Your task to perform on an android device: open chrome privacy settings Image 0: 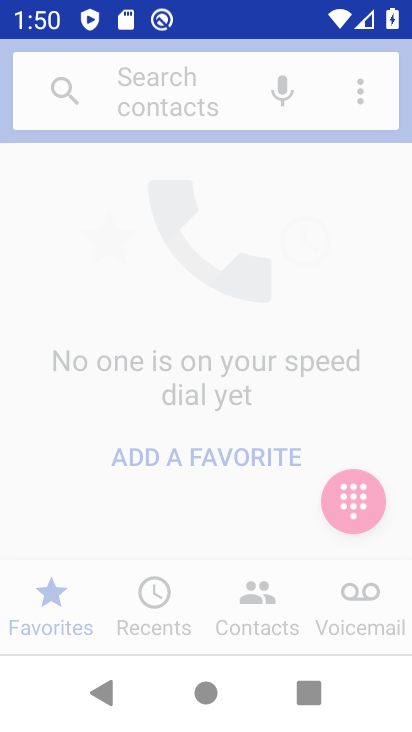
Step 0: drag from (363, 531) to (200, 126)
Your task to perform on an android device: open chrome privacy settings Image 1: 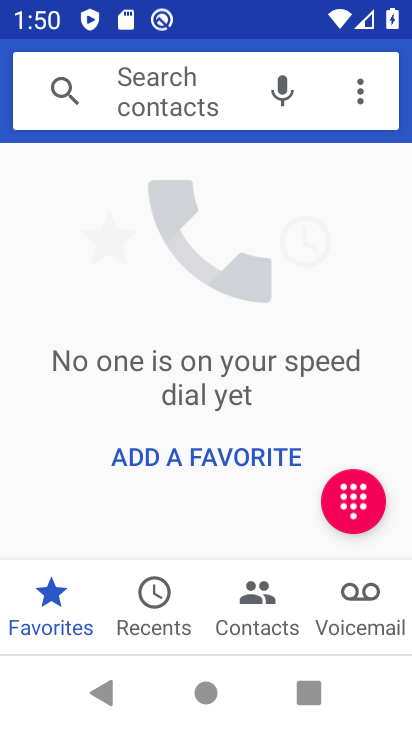
Step 1: press back button
Your task to perform on an android device: open chrome privacy settings Image 2: 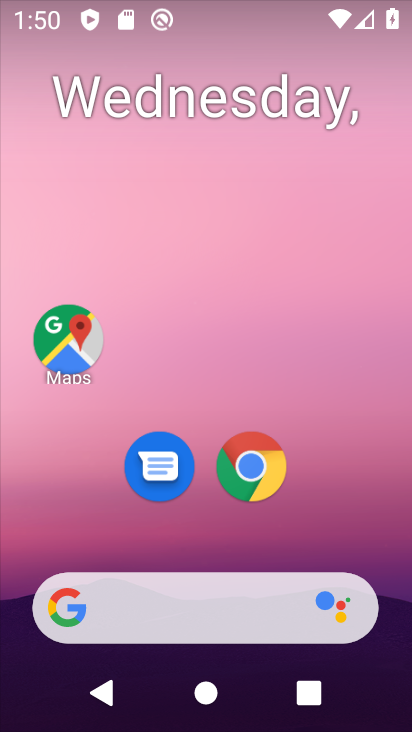
Step 2: drag from (364, 481) to (305, 35)
Your task to perform on an android device: open chrome privacy settings Image 3: 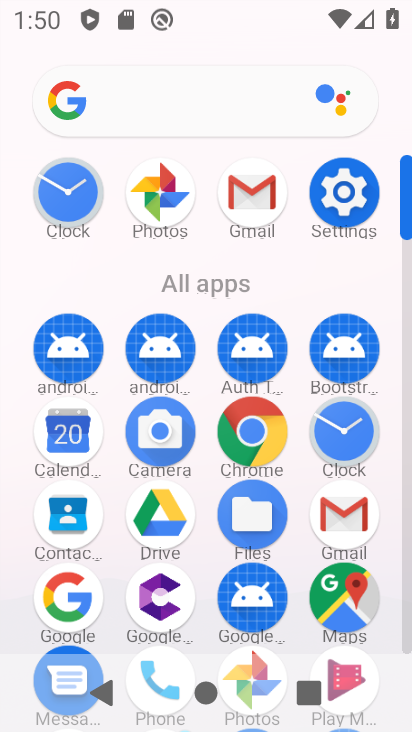
Step 3: click (254, 429)
Your task to perform on an android device: open chrome privacy settings Image 4: 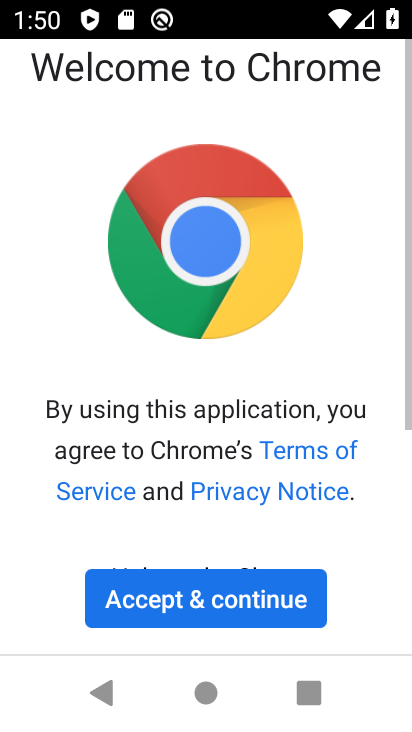
Step 4: click (260, 582)
Your task to perform on an android device: open chrome privacy settings Image 5: 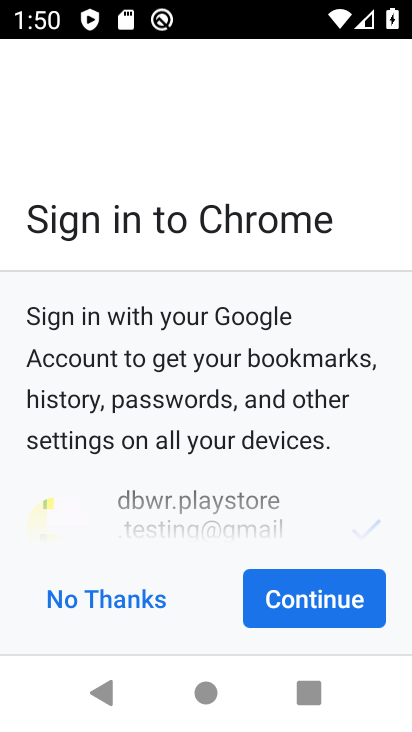
Step 5: click (320, 590)
Your task to perform on an android device: open chrome privacy settings Image 6: 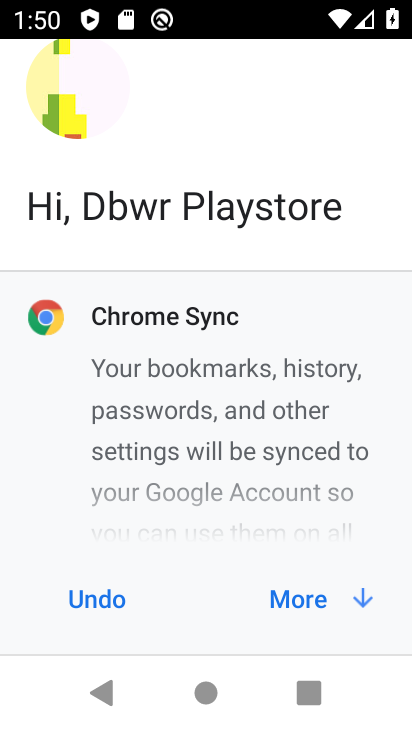
Step 6: click (320, 590)
Your task to perform on an android device: open chrome privacy settings Image 7: 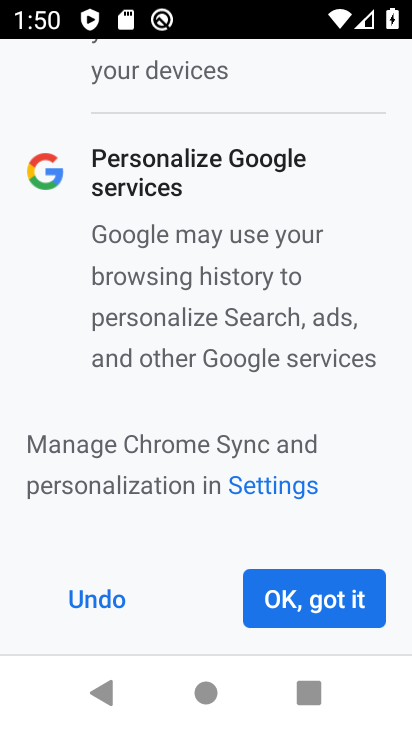
Step 7: click (320, 590)
Your task to perform on an android device: open chrome privacy settings Image 8: 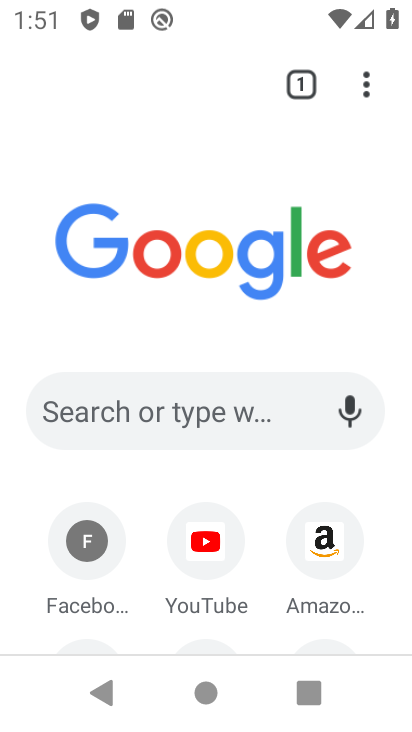
Step 8: click (357, 72)
Your task to perform on an android device: open chrome privacy settings Image 9: 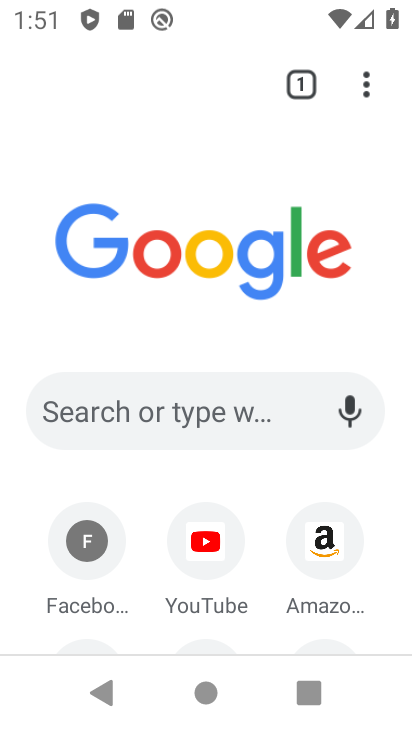
Step 9: drag from (367, 80) to (116, 507)
Your task to perform on an android device: open chrome privacy settings Image 10: 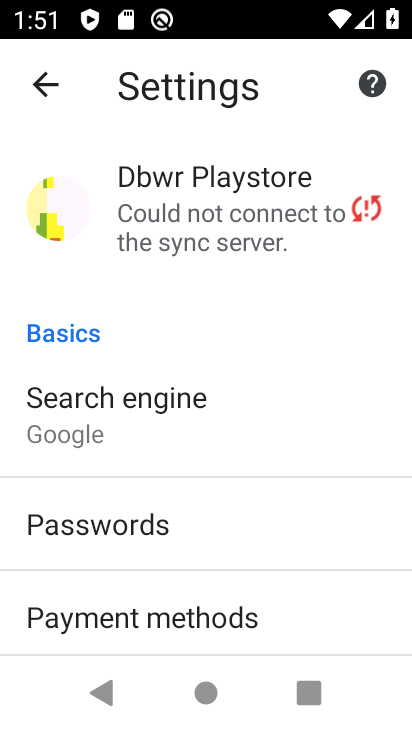
Step 10: drag from (223, 516) to (157, 157)
Your task to perform on an android device: open chrome privacy settings Image 11: 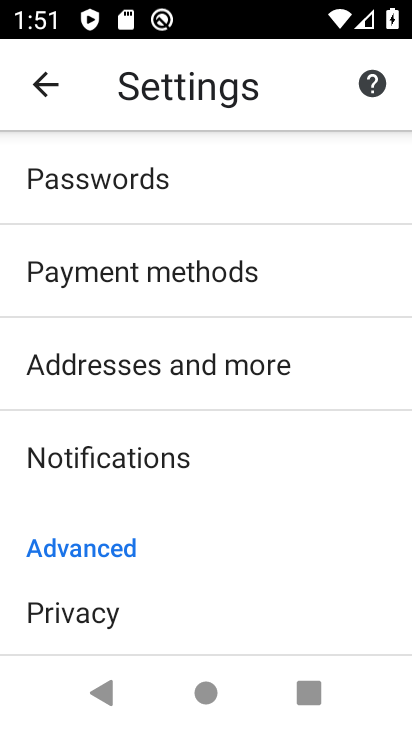
Step 11: click (126, 621)
Your task to perform on an android device: open chrome privacy settings Image 12: 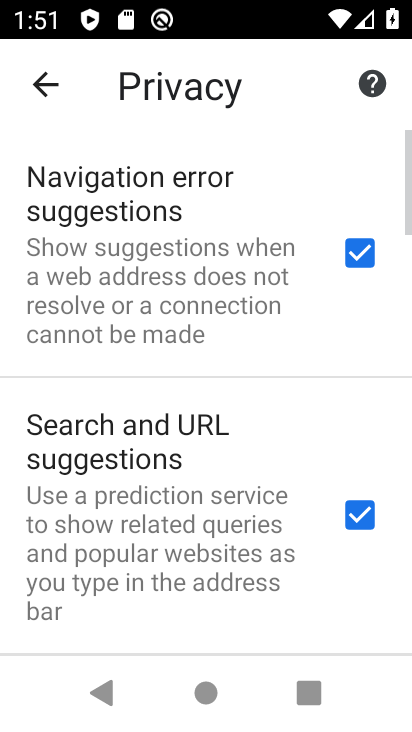
Step 12: task complete